Your task to perform on an android device: Open calendar and show me the second week of next month Image 0: 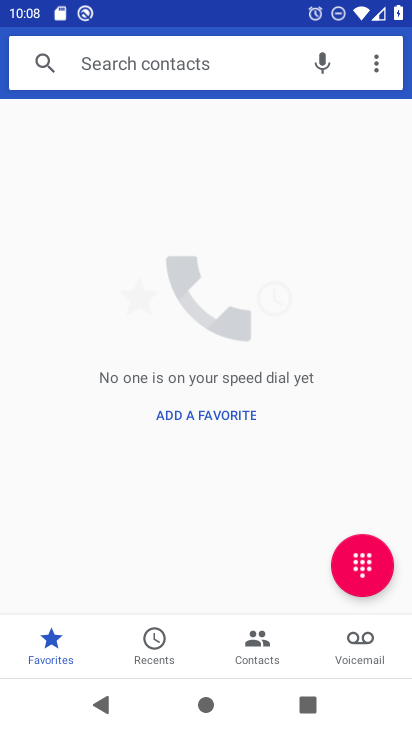
Step 0: press home button
Your task to perform on an android device: Open calendar and show me the second week of next month Image 1: 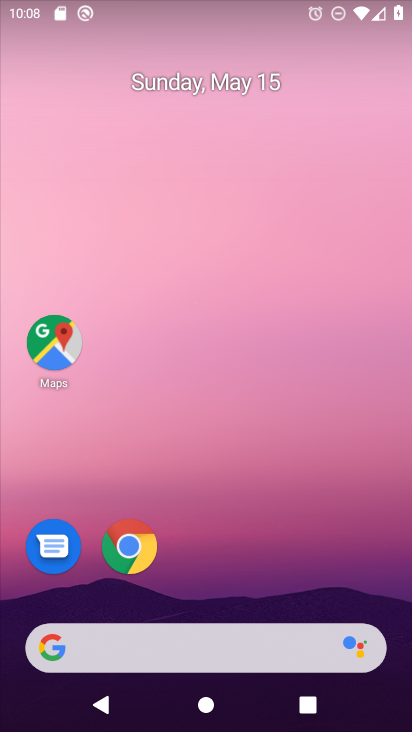
Step 1: drag from (340, 549) to (330, 57)
Your task to perform on an android device: Open calendar and show me the second week of next month Image 2: 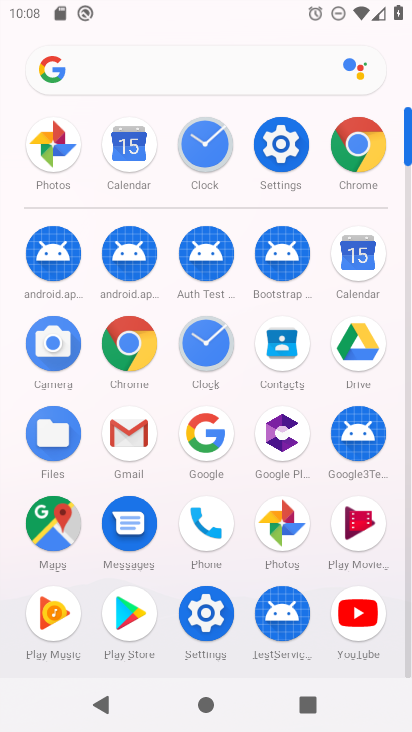
Step 2: click (350, 247)
Your task to perform on an android device: Open calendar and show me the second week of next month Image 3: 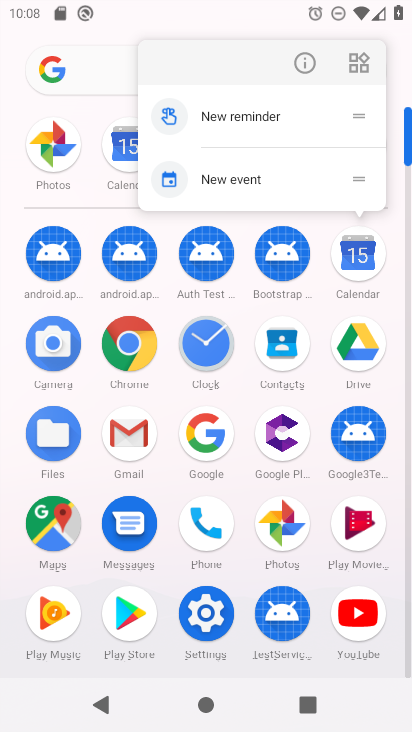
Step 3: click (359, 257)
Your task to perform on an android device: Open calendar and show me the second week of next month Image 4: 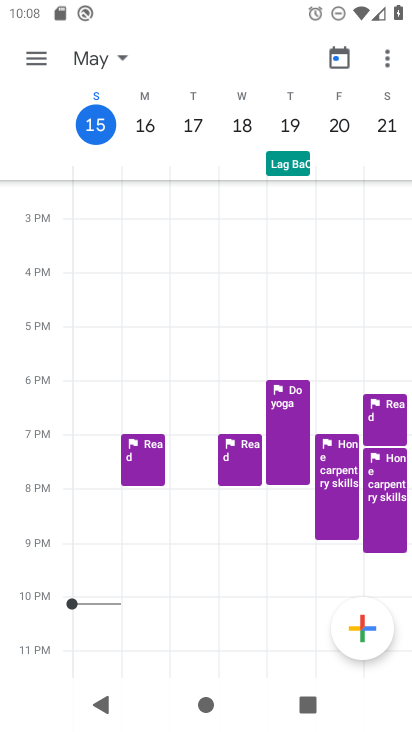
Step 4: drag from (388, 52) to (19, 142)
Your task to perform on an android device: Open calendar and show me the second week of next month Image 5: 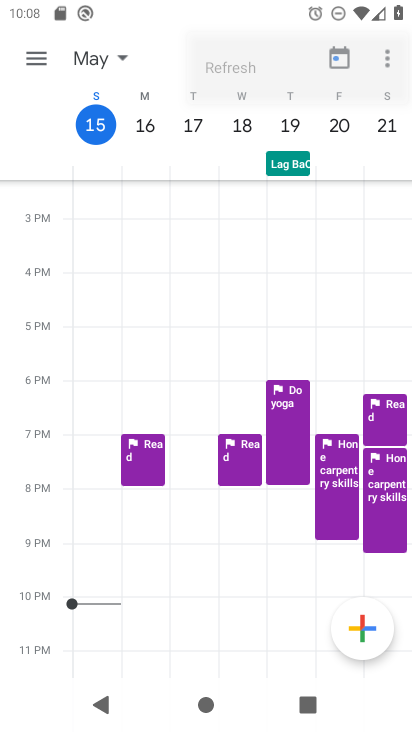
Step 5: click (32, 116)
Your task to perform on an android device: Open calendar and show me the second week of next month Image 6: 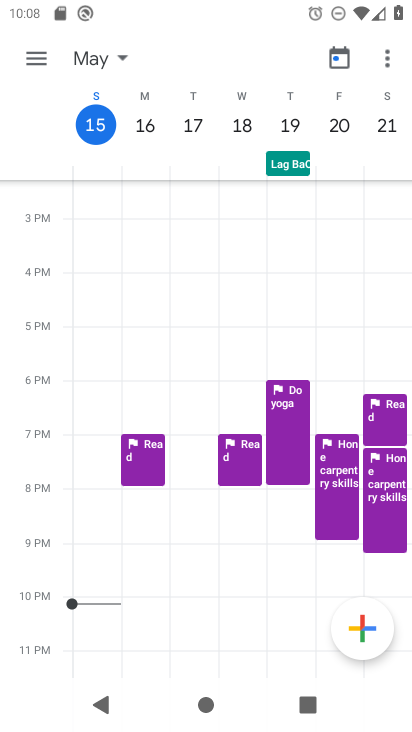
Step 6: click (121, 50)
Your task to perform on an android device: Open calendar and show me the second week of next month Image 7: 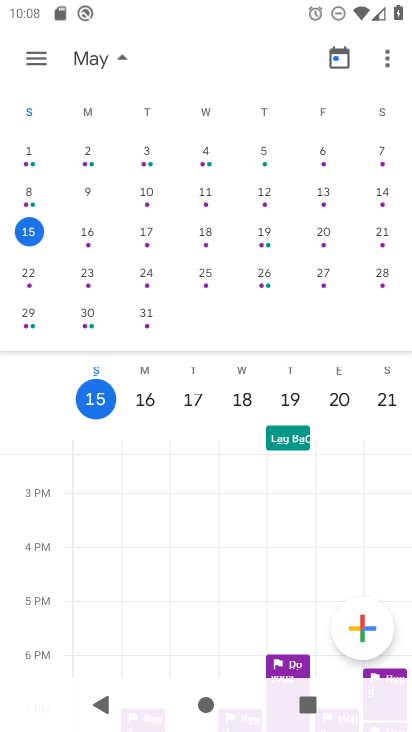
Step 7: drag from (365, 221) to (32, 222)
Your task to perform on an android device: Open calendar and show me the second week of next month Image 8: 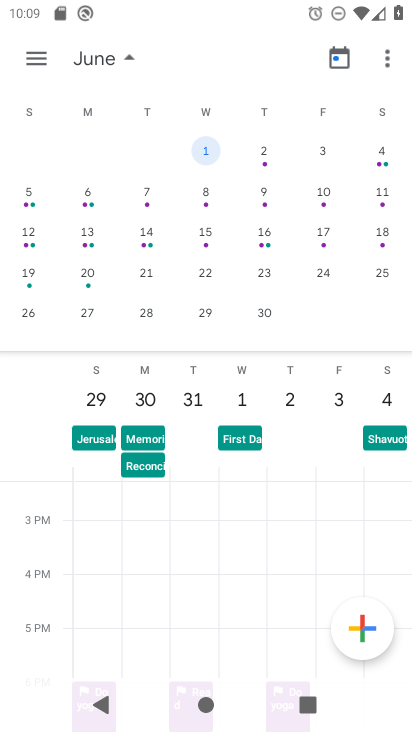
Step 8: click (36, 234)
Your task to perform on an android device: Open calendar and show me the second week of next month Image 9: 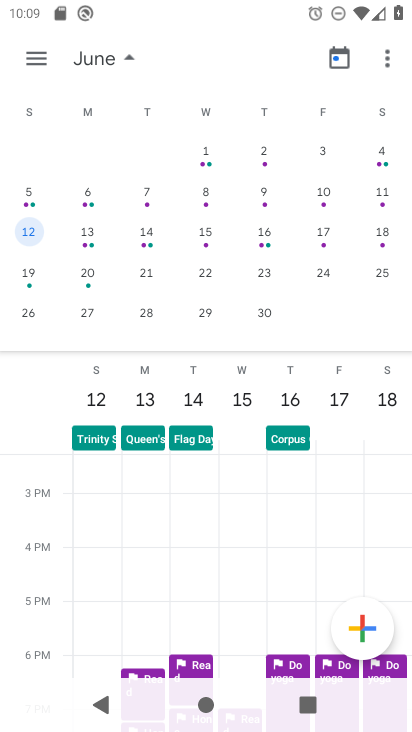
Step 9: task complete